Your task to perform on an android device: Search for apple airpods on amazon.com, select the first entry, add it to the cart, then select checkout. Image 0: 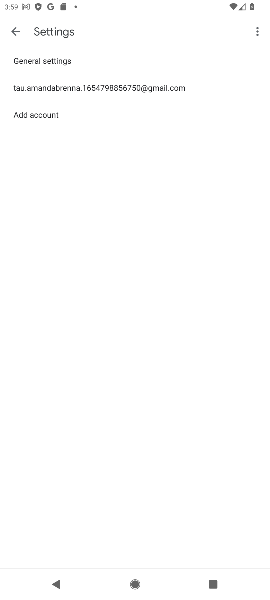
Step 0: press home button
Your task to perform on an android device: Search for apple airpods on amazon.com, select the first entry, add it to the cart, then select checkout. Image 1: 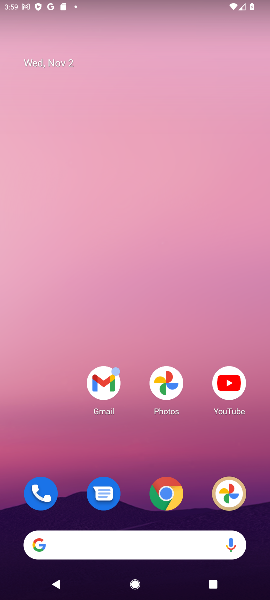
Step 1: drag from (143, 552) to (138, 103)
Your task to perform on an android device: Search for apple airpods on amazon.com, select the first entry, add it to the cart, then select checkout. Image 2: 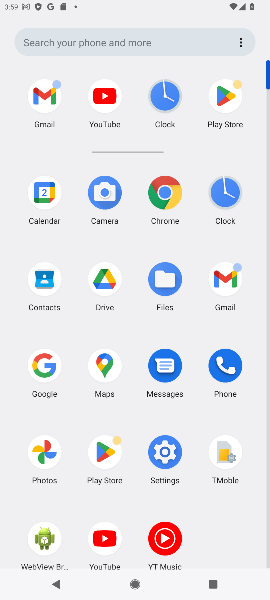
Step 2: click (39, 365)
Your task to perform on an android device: Search for apple airpods on amazon.com, select the first entry, add it to the cart, then select checkout. Image 3: 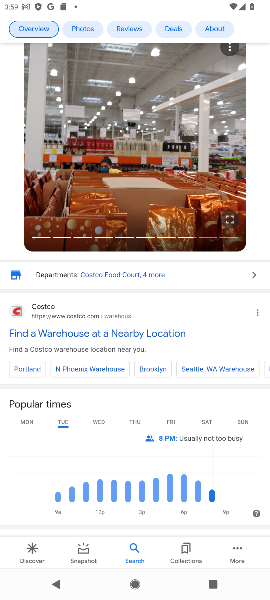
Step 3: drag from (123, 94) to (70, 515)
Your task to perform on an android device: Search for apple airpods on amazon.com, select the first entry, add it to the cart, then select checkout. Image 4: 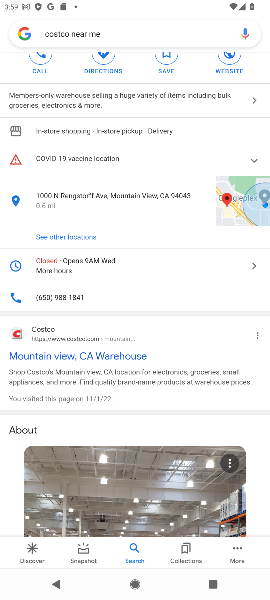
Step 4: click (129, 35)
Your task to perform on an android device: Search for apple airpods on amazon.com, select the first entry, add it to the cart, then select checkout. Image 5: 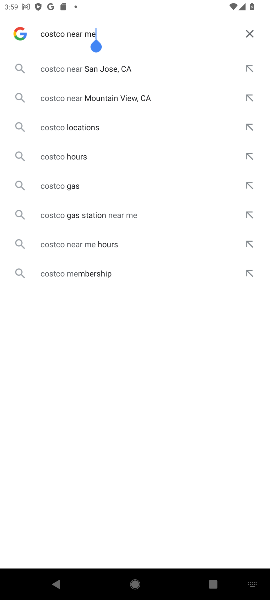
Step 5: click (247, 32)
Your task to perform on an android device: Search for apple airpods on amazon.com, select the first entry, add it to the cart, then select checkout. Image 6: 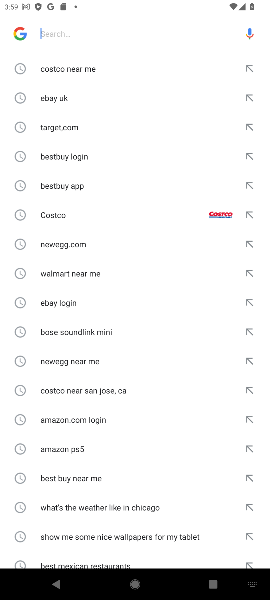
Step 6: click (116, 28)
Your task to perform on an android device: Search for apple airpods on amazon.com, select the first entry, add it to the cart, then select checkout. Image 7: 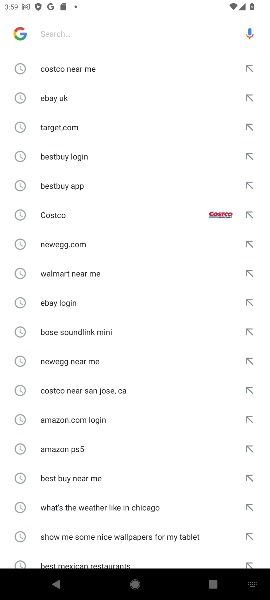
Step 7: type "amazon "
Your task to perform on an android device: Search for apple airpods on amazon.com, select the first entry, add it to the cart, then select checkout. Image 8: 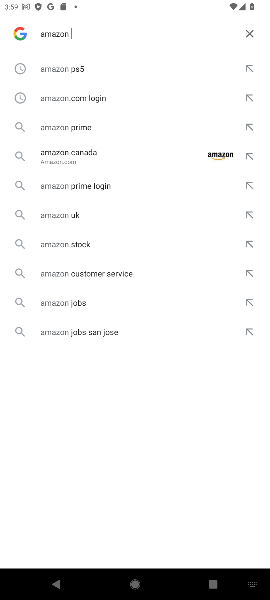
Step 8: click (58, 212)
Your task to perform on an android device: Search for apple airpods on amazon.com, select the first entry, add it to the cart, then select checkout. Image 9: 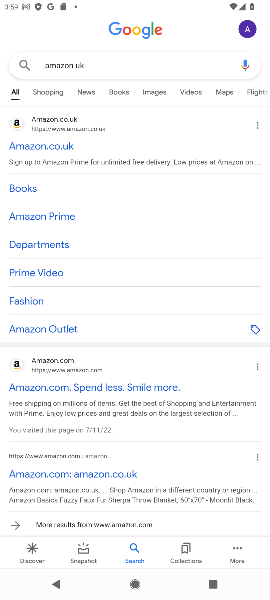
Step 9: click (39, 142)
Your task to perform on an android device: Search for apple airpods on amazon.com, select the first entry, add it to the cart, then select checkout. Image 10: 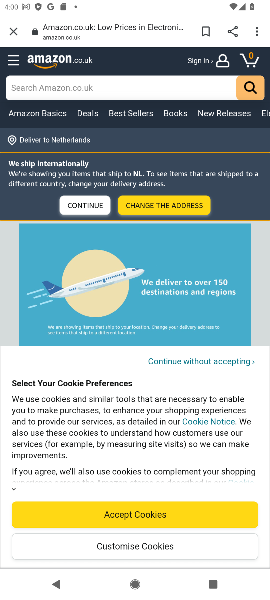
Step 10: click (82, 84)
Your task to perform on an android device: Search for apple airpods on amazon.com, select the first entry, add it to the cart, then select checkout. Image 11: 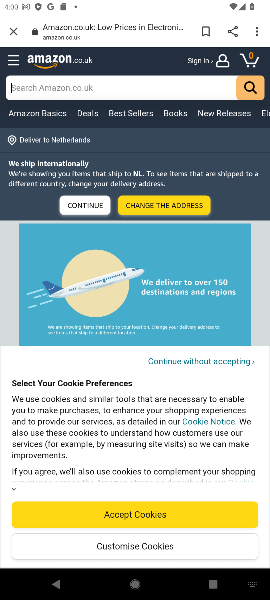
Step 11: type "airpods "
Your task to perform on an android device: Search for apple airpods on amazon.com, select the first entry, add it to the cart, then select checkout. Image 12: 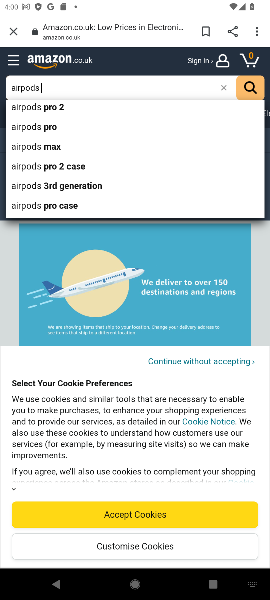
Step 12: click (31, 127)
Your task to perform on an android device: Search for apple airpods on amazon.com, select the first entry, add it to the cart, then select checkout. Image 13: 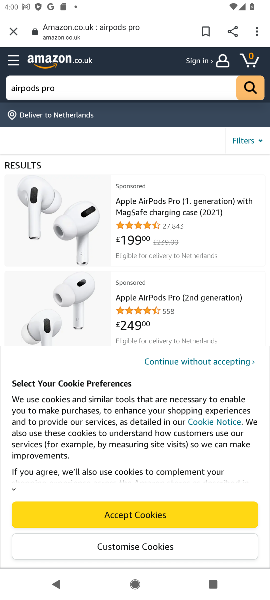
Step 13: drag from (168, 491) to (185, 392)
Your task to perform on an android device: Search for apple airpods on amazon.com, select the first entry, add it to the cart, then select checkout. Image 14: 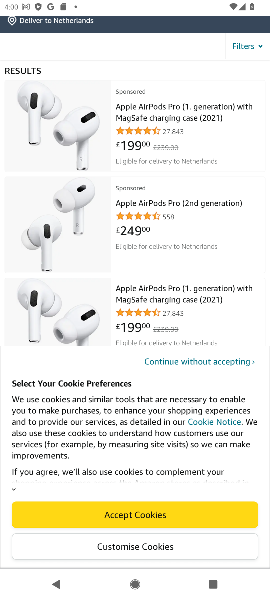
Step 14: click (175, 511)
Your task to perform on an android device: Search for apple airpods on amazon.com, select the first entry, add it to the cart, then select checkout. Image 15: 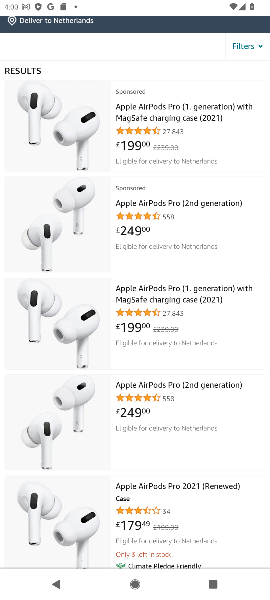
Step 15: click (177, 101)
Your task to perform on an android device: Search for apple airpods on amazon.com, select the first entry, add it to the cart, then select checkout. Image 16: 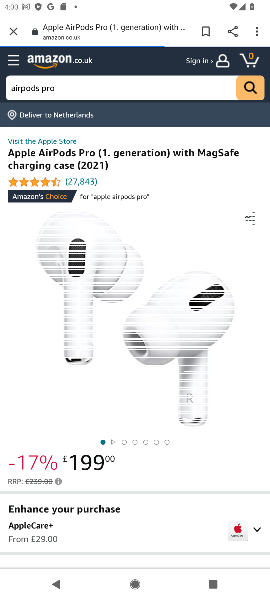
Step 16: drag from (161, 467) to (161, 208)
Your task to perform on an android device: Search for apple airpods on amazon.com, select the first entry, add it to the cart, then select checkout. Image 17: 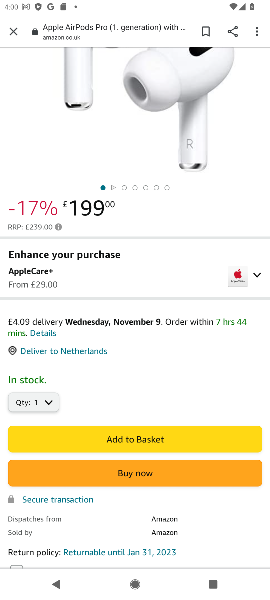
Step 17: click (172, 432)
Your task to perform on an android device: Search for apple airpods on amazon.com, select the first entry, add it to the cart, then select checkout. Image 18: 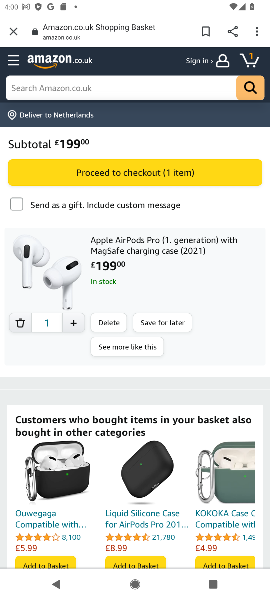
Step 18: task complete